Your task to perform on an android device: choose inbox layout in the gmail app Image 0: 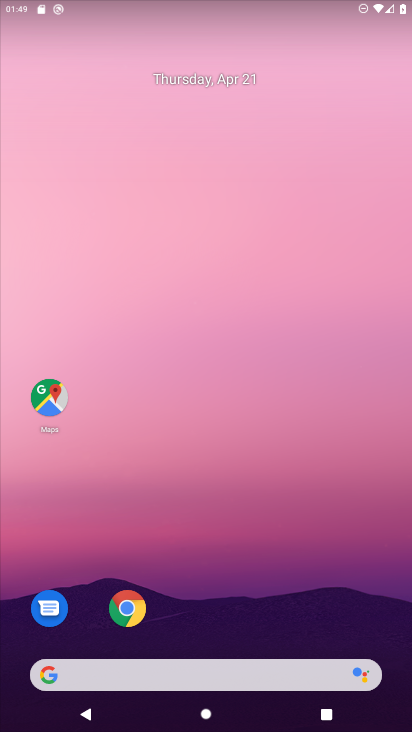
Step 0: drag from (243, 382) to (262, 235)
Your task to perform on an android device: choose inbox layout in the gmail app Image 1: 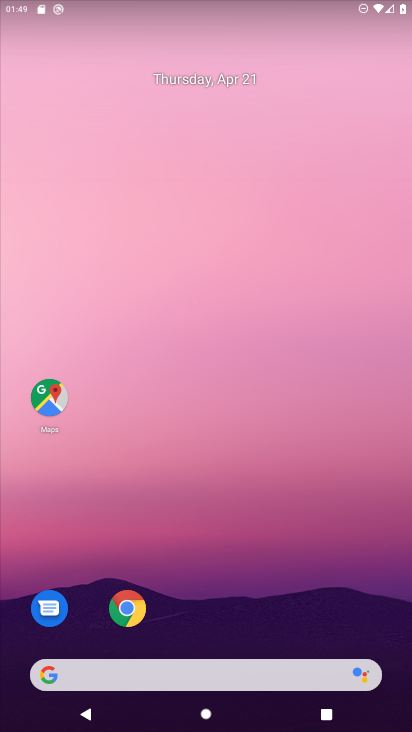
Step 1: drag from (263, 604) to (291, 184)
Your task to perform on an android device: choose inbox layout in the gmail app Image 2: 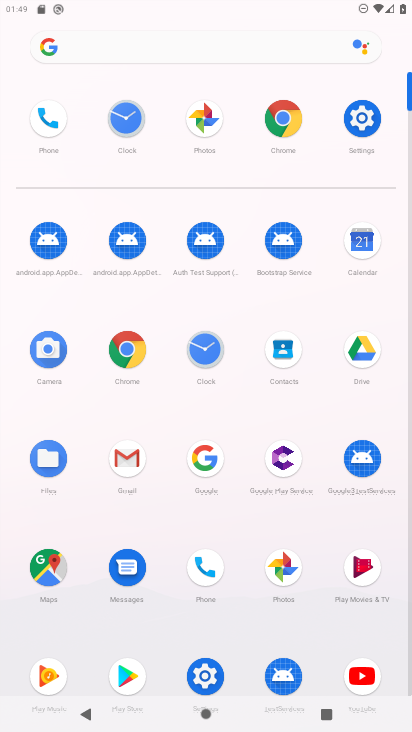
Step 2: click (128, 452)
Your task to perform on an android device: choose inbox layout in the gmail app Image 3: 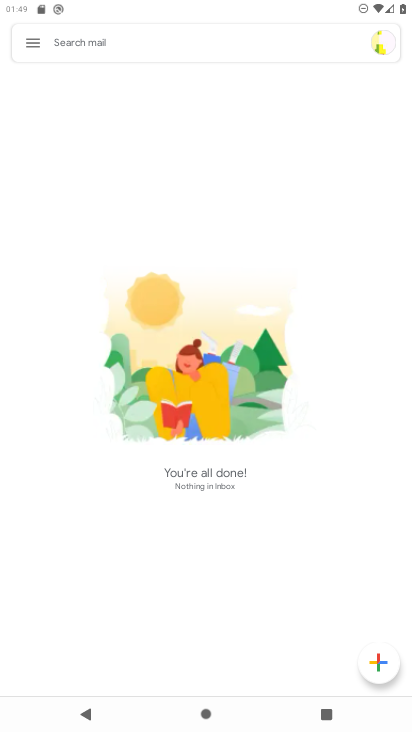
Step 3: click (27, 42)
Your task to perform on an android device: choose inbox layout in the gmail app Image 4: 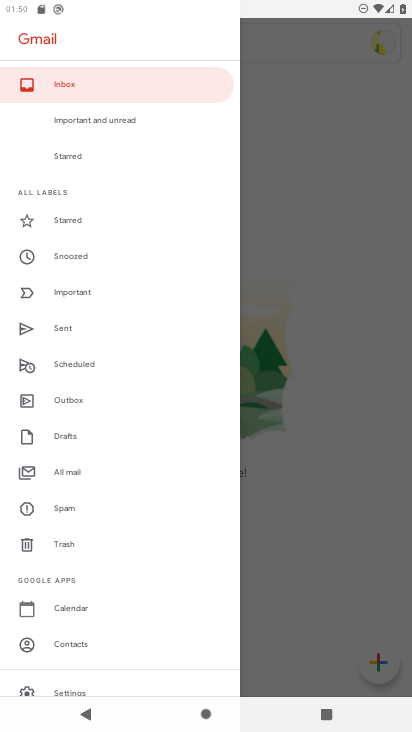
Step 4: drag from (147, 621) to (195, 275)
Your task to perform on an android device: choose inbox layout in the gmail app Image 5: 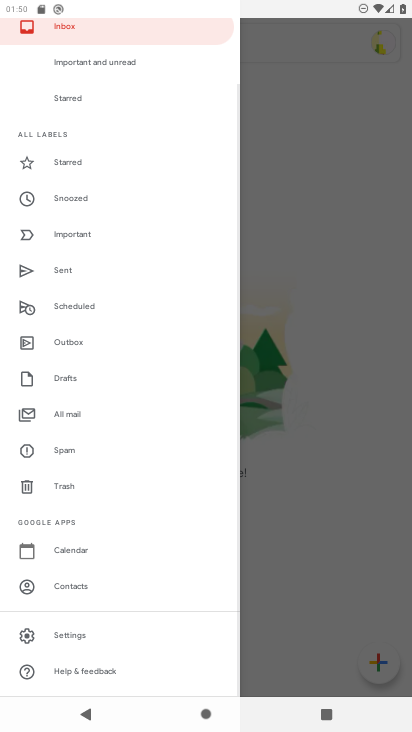
Step 5: click (75, 630)
Your task to perform on an android device: choose inbox layout in the gmail app Image 6: 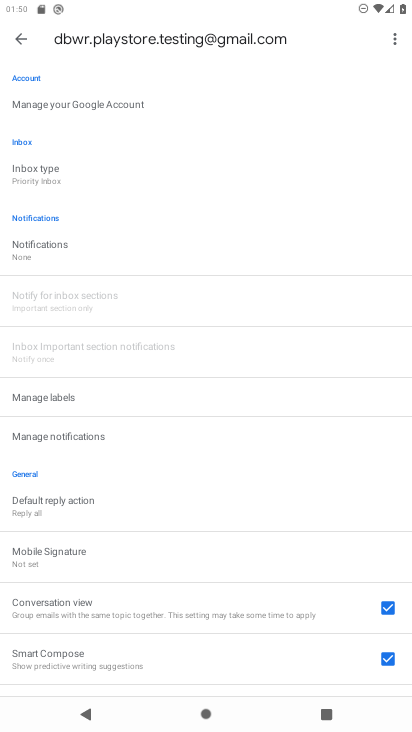
Step 6: click (61, 171)
Your task to perform on an android device: choose inbox layout in the gmail app Image 7: 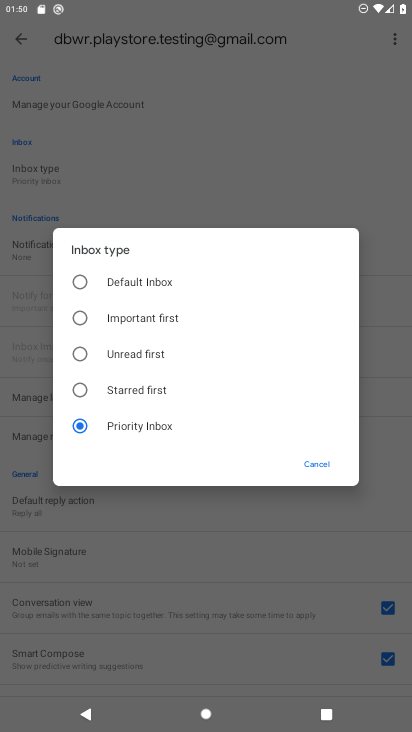
Step 7: click (136, 353)
Your task to perform on an android device: choose inbox layout in the gmail app Image 8: 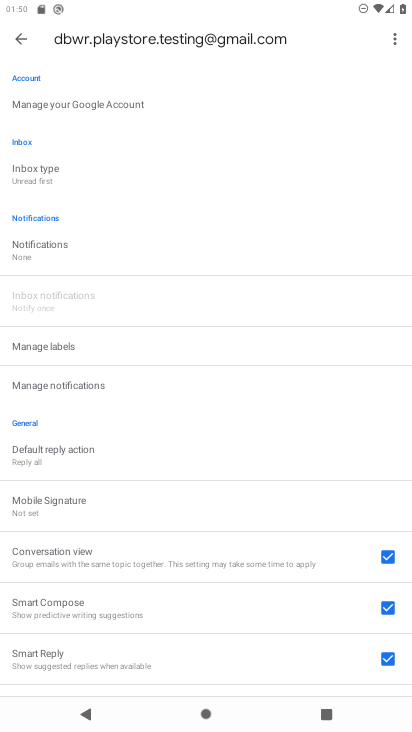
Step 8: drag from (224, 526) to (292, 76)
Your task to perform on an android device: choose inbox layout in the gmail app Image 9: 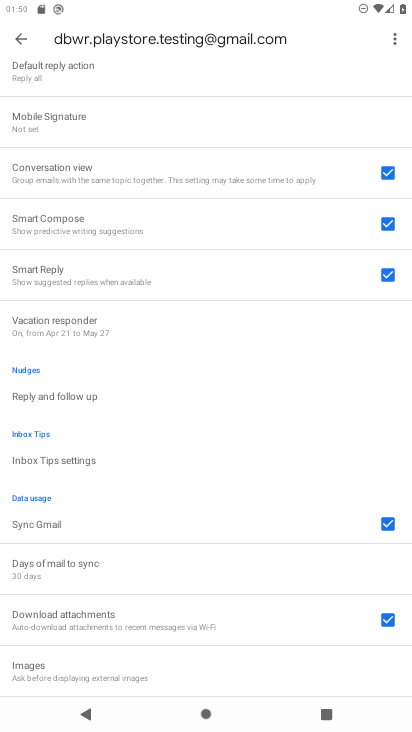
Step 9: drag from (103, 152) to (178, 656)
Your task to perform on an android device: choose inbox layout in the gmail app Image 10: 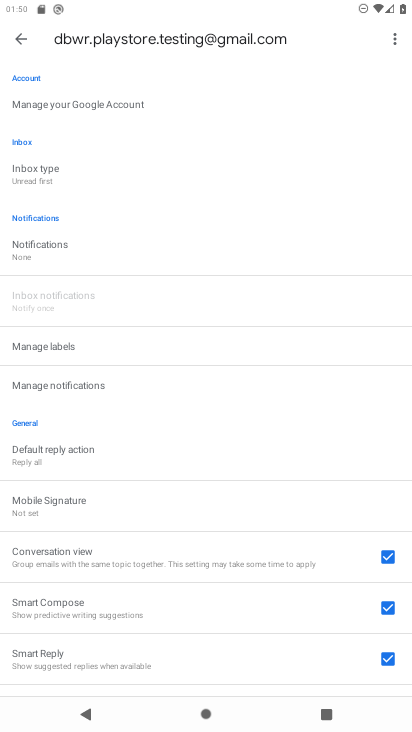
Step 10: click (59, 176)
Your task to perform on an android device: choose inbox layout in the gmail app Image 11: 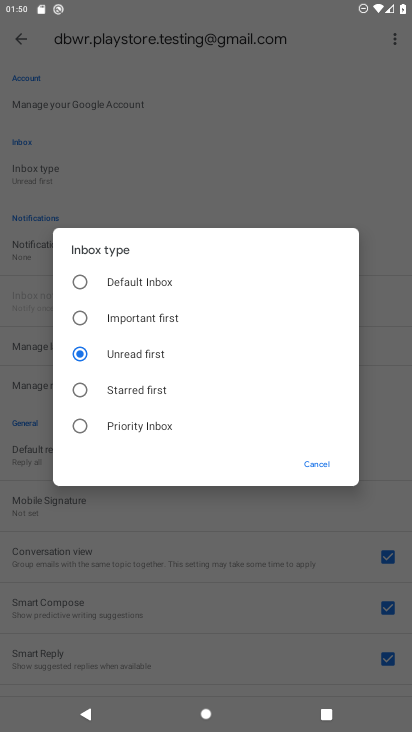
Step 11: click (134, 309)
Your task to perform on an android device: choose inbox layout in the gmail app Image 12: 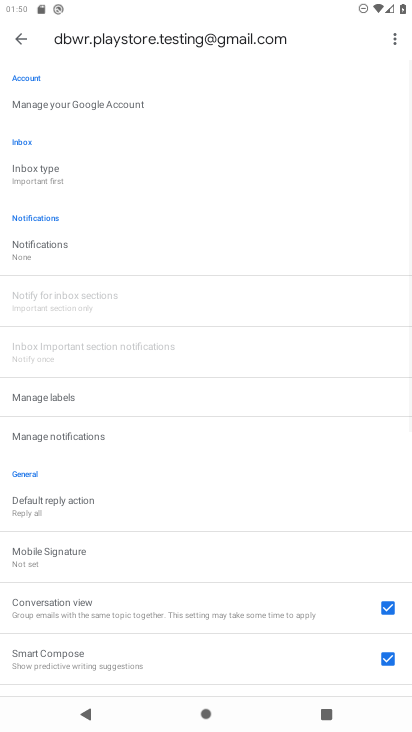
Step 12: task complete